Your task to perform on an android device: check storage Image 0: 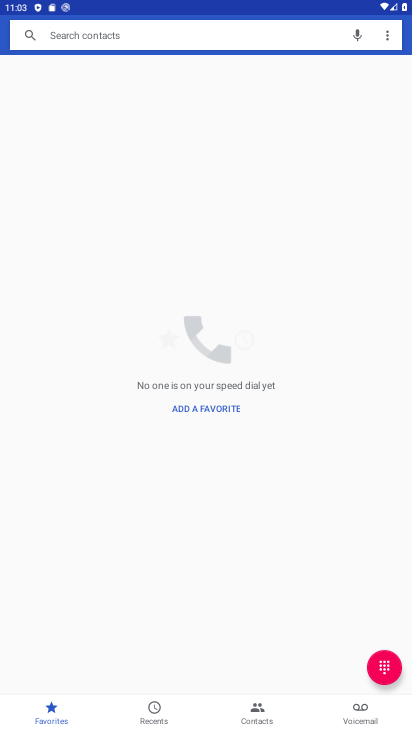
Step 0: press home button
Your task to perform on an android device: check storage Image 1: 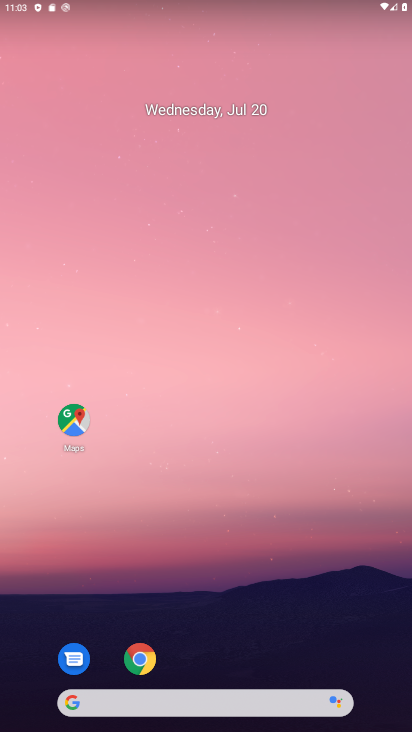
Step 1: drag from (209, 649) to (250, 103)
Your task to perform on an android device: check storage Image 2: 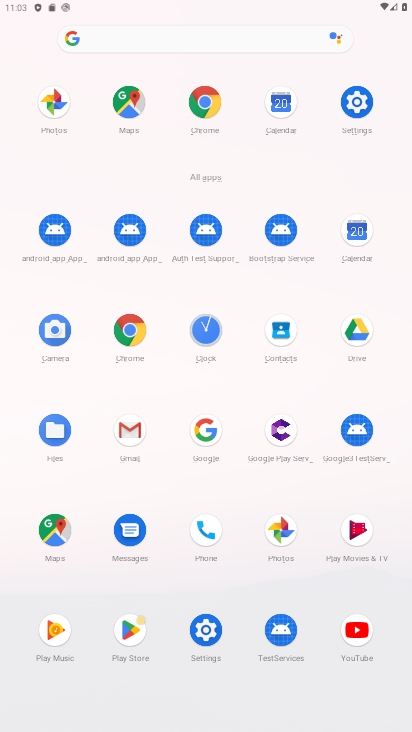
Step 2: click (219, 633)
Your task to perform on an android device: check storage Image 3: 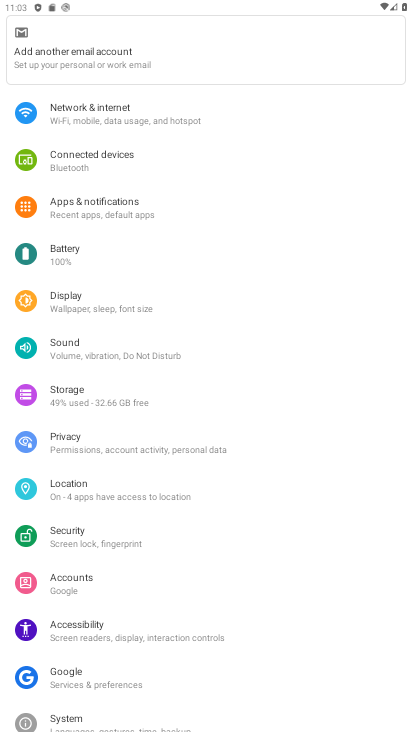
Step 3: click (84, 394)
Your task to perform on an android device: check storage Image 4: 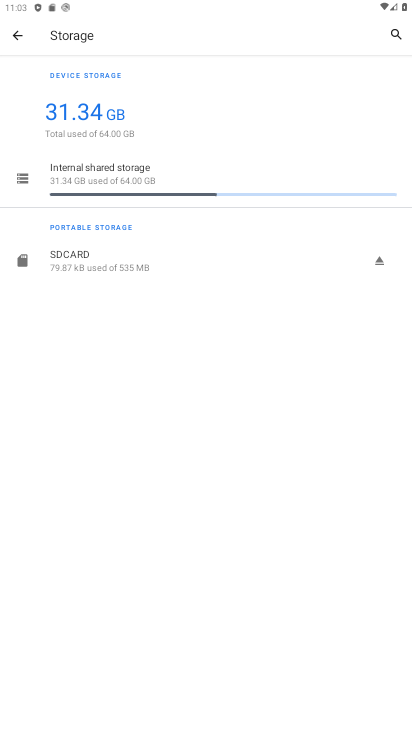
Step 4: click (138, 177)
Your task to perform on an android device: check storage Image 5: 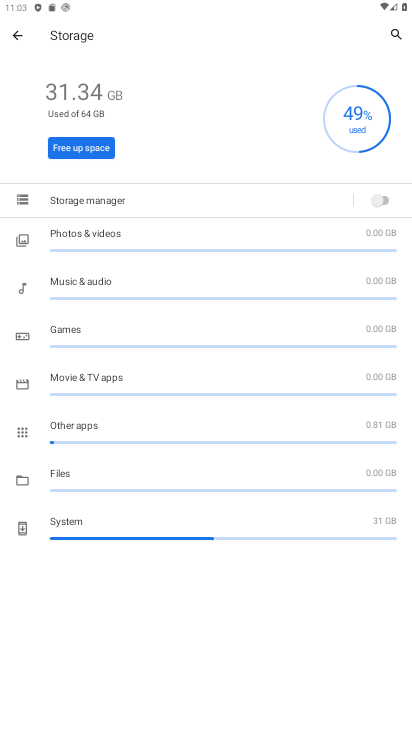
Step 5: task complete